Your task to perform on an android device: check data usage Image 0: 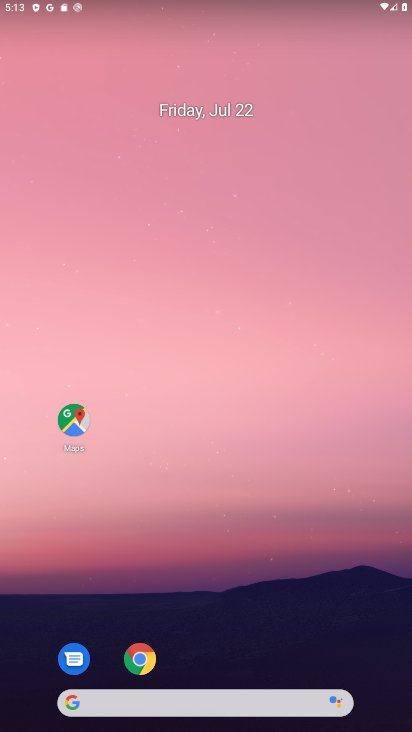
Step 0: drag from (236, 662) to (257, 110)
Your task to perform on an android device: check data usage Image 1: 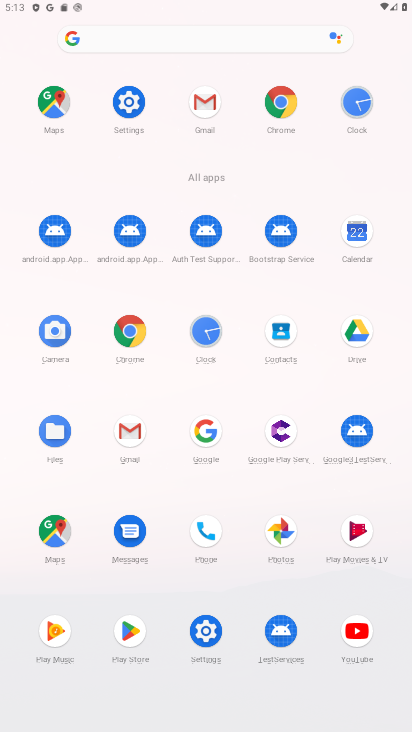
Step 1: click (126, 88)
Your task to perform on an android device: check data usage Image 2: 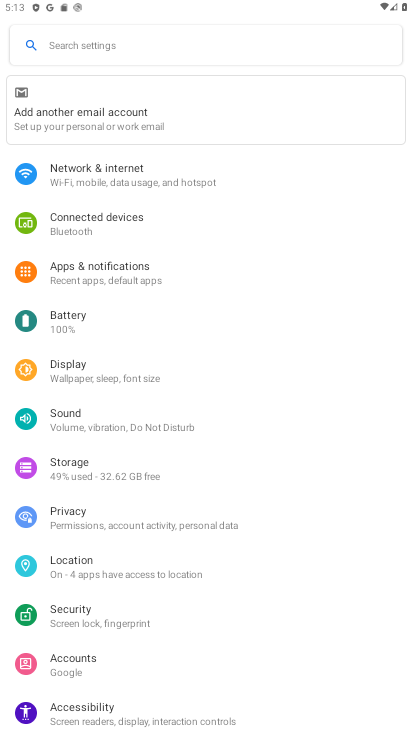
Step 2: click (122, 167)
Your task to perform on an android device: check data usage Image 3: 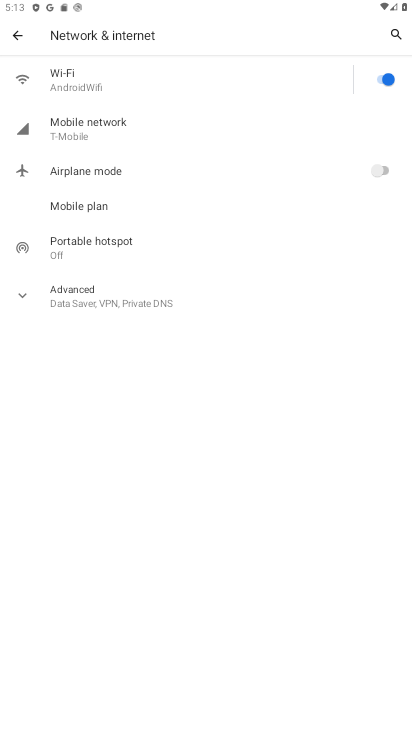
Step 3: click (95, 125)
Your task to perform on an android device: check data usage Image 4: 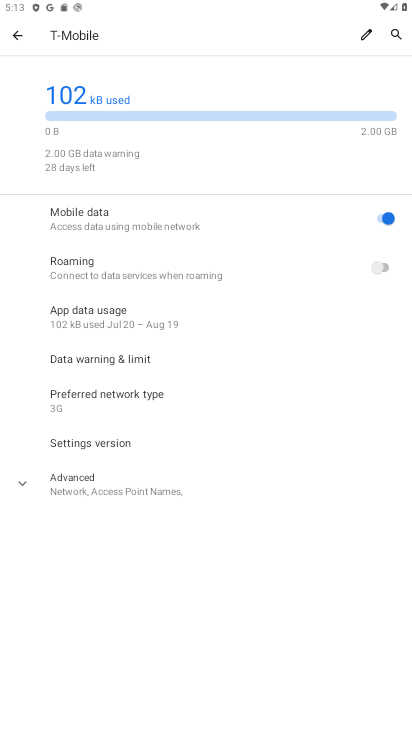
Step 4: click (128, 324)
Your task to perform on an android device: check data usage Image 5: 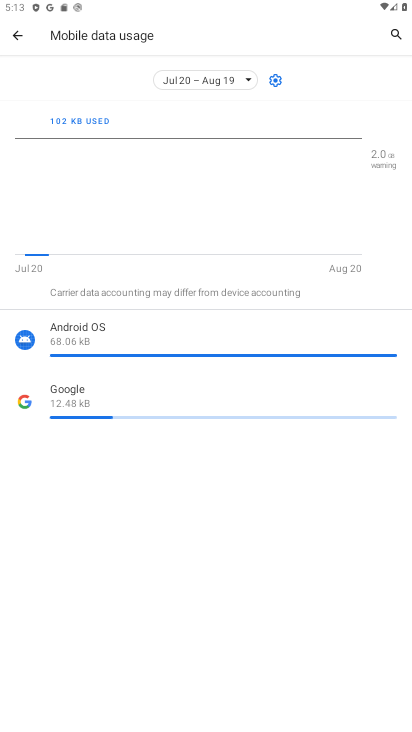
Step 5: task complete